Your task to perform on an android device: See recent photos Image 0: 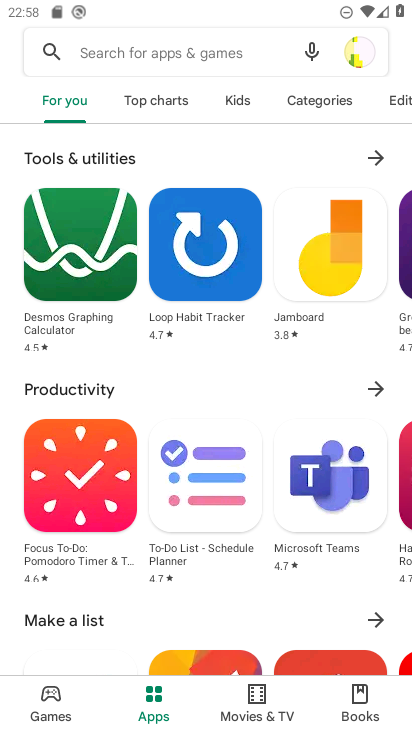
Step 0: press home button
Your task to perform on an android device: See recent photos Image 1: 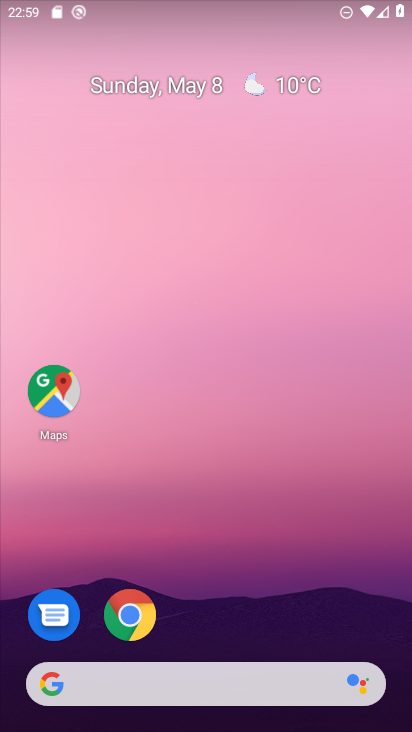
Step 1: drag from (303, 579) to (308, 90)
Your task to perform on an android device: See recent photos Image 2: 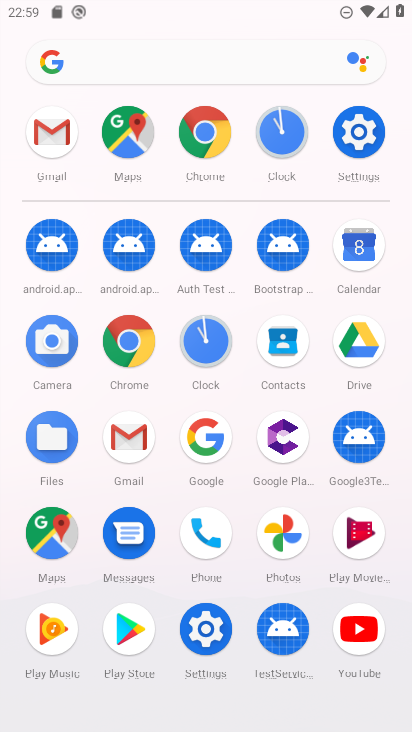
Step 2: click (278, 549)
Your task to perform on an android device: See recent photos Image 3: 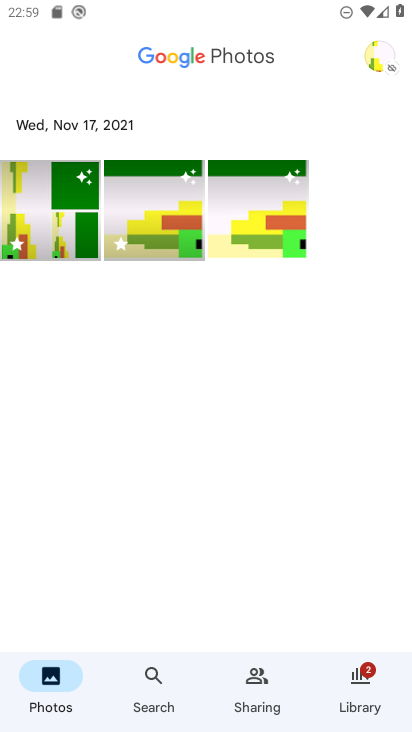
Step 3: task complete